Your task to perform on an android device: turn on showing notifications on the lock screen Image 0: 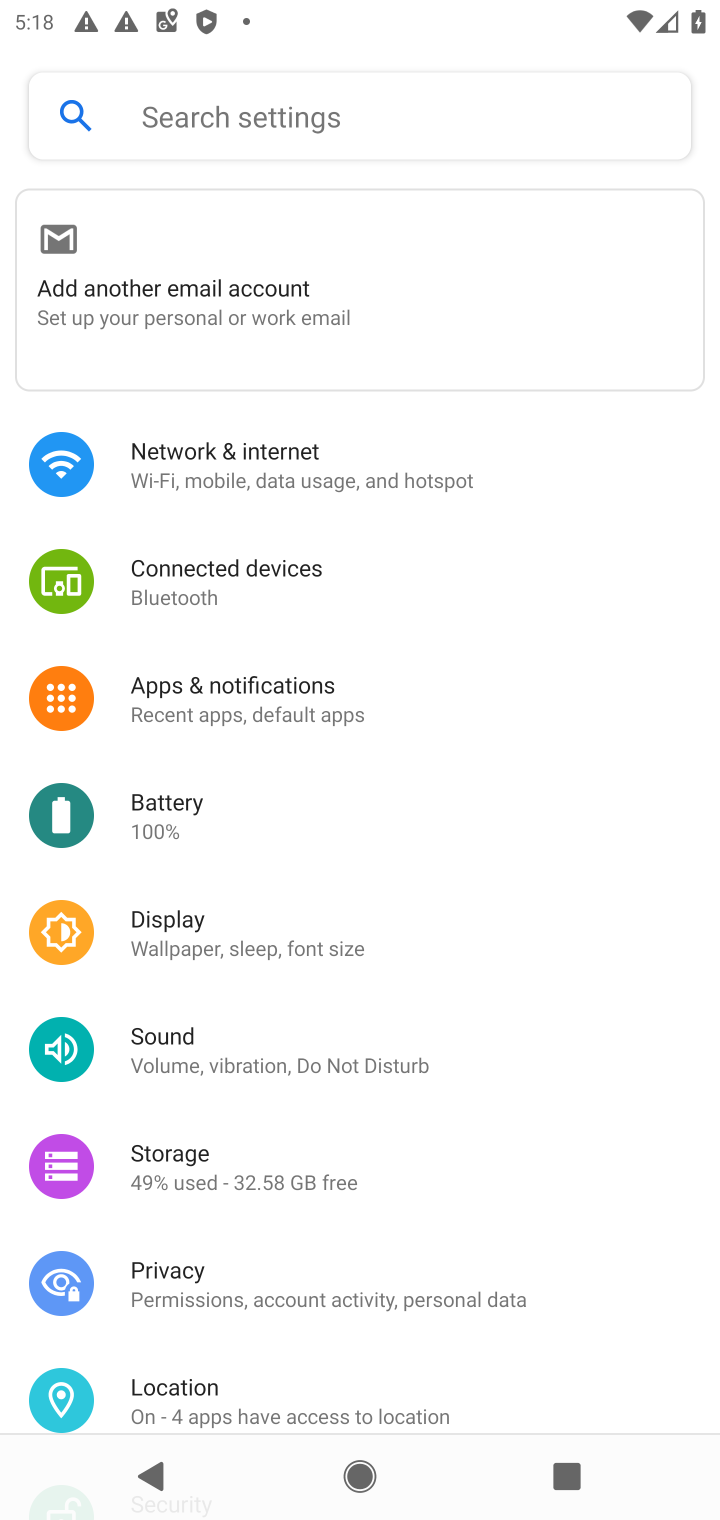
Step 0: press home button
Your task to perform on an android device: turn on showing notifications on the lock screen Image 1: 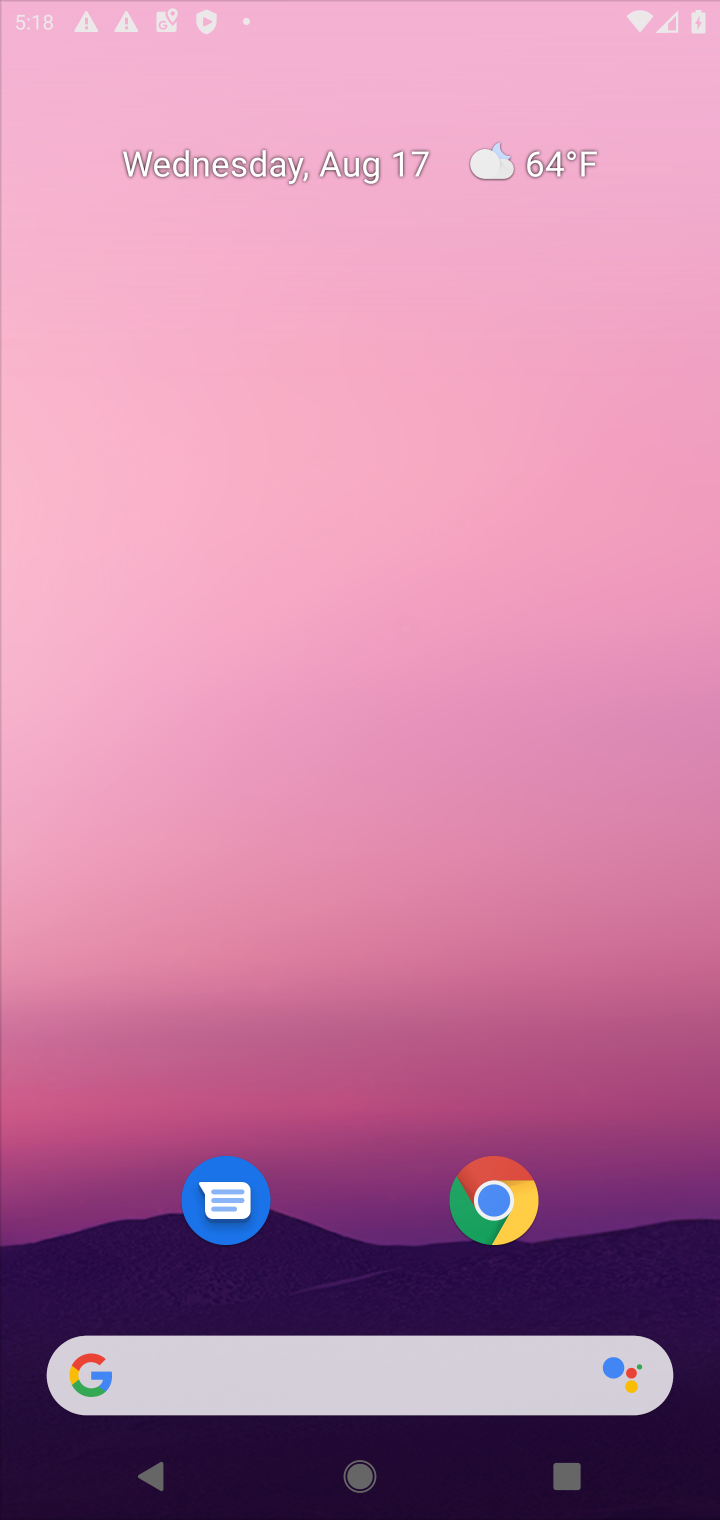
Step 1: press home button
Your task to perform on an android device: turn on showing notifications on the lock screen Image 2: 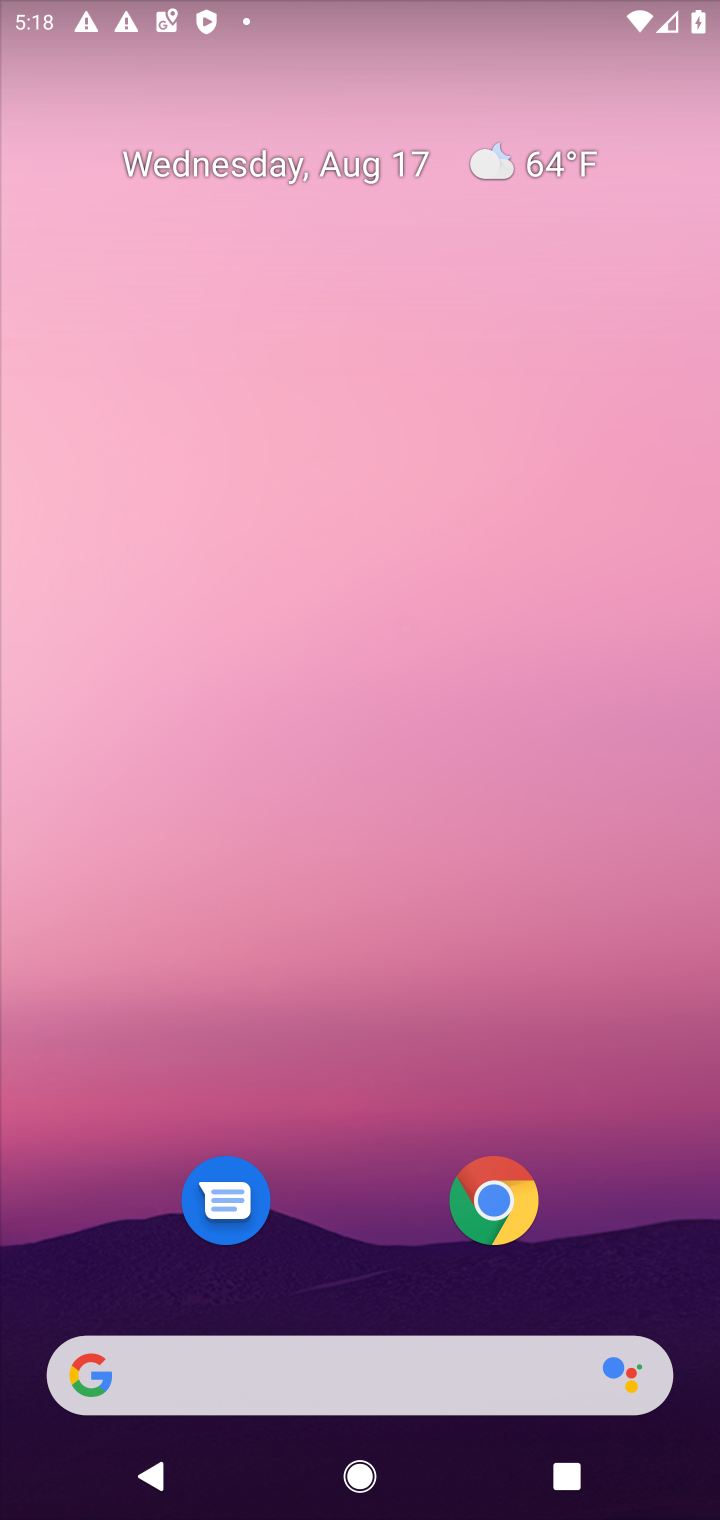
Step 2: drag from (391, 729) to (391, 168)
Your task to perform on an android device: turn on showing notifications on the lock screen Image 3: 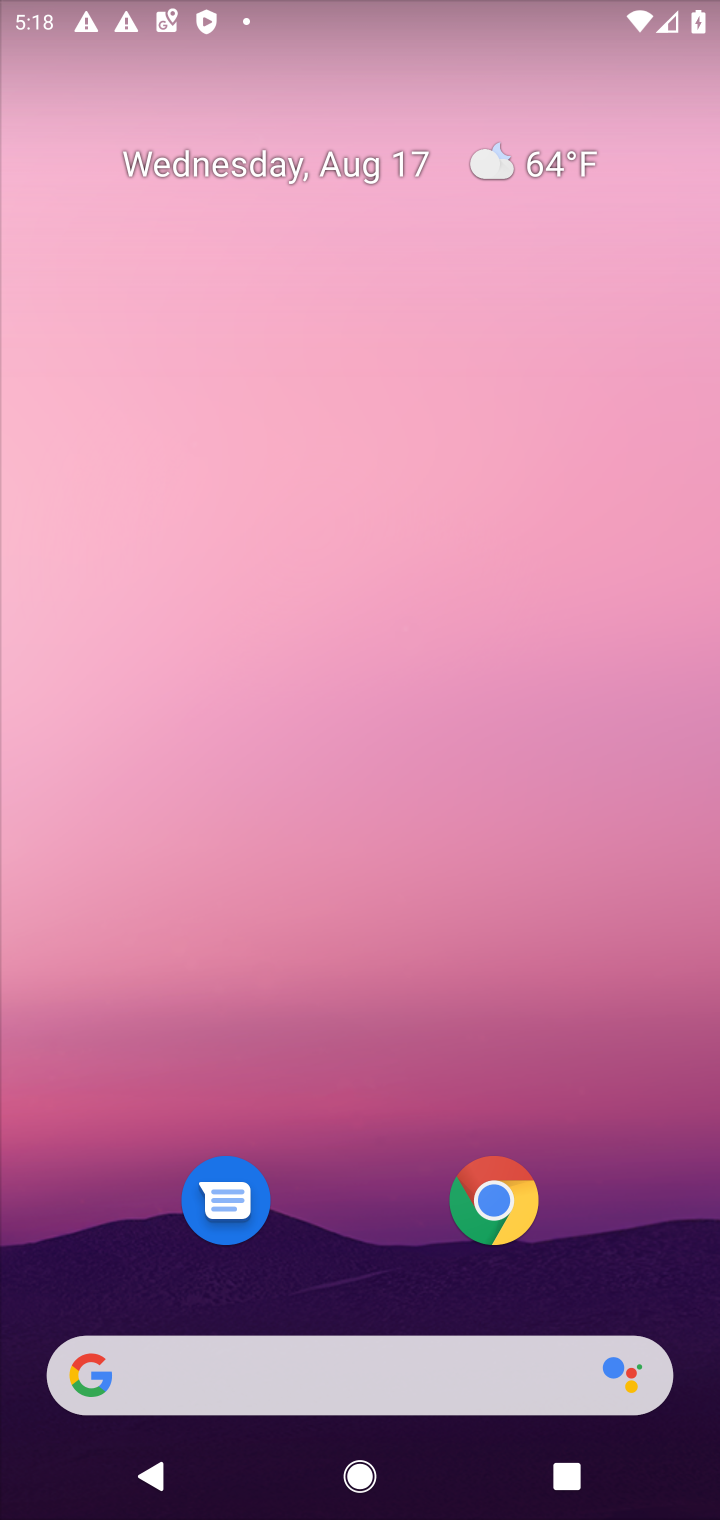
Step 3: drag from (334, 1233) to (295, 98)
Your task to perform on an android device: turn on showing notifications on the lock screen Image 4: 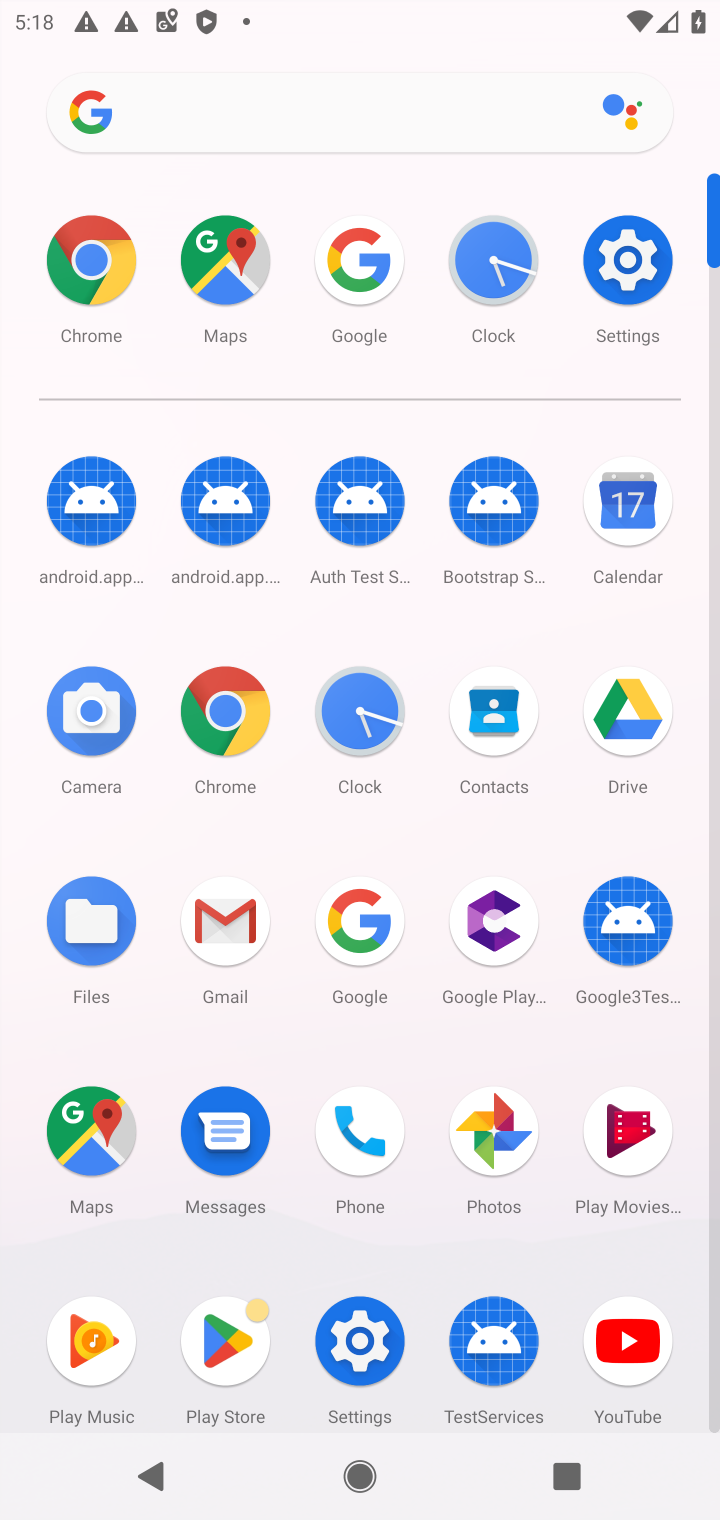
Step 4: click (626, 238)
Your task to perform on an android device: turn on showing notifications on the lock screen Image 5: 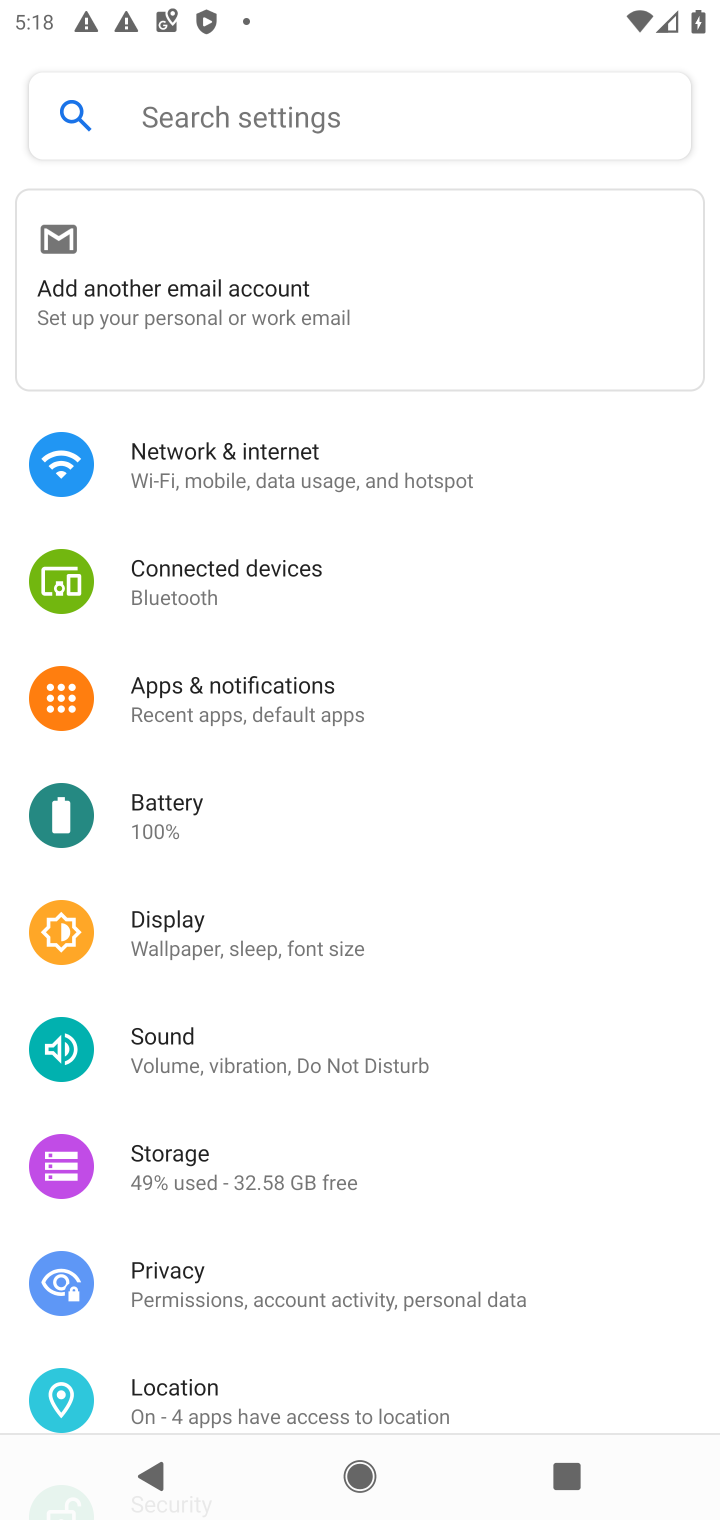
Step 5: click (216, 677)
Your task to perform on an android device: turn on showing notifications on the lock screen Image 6: 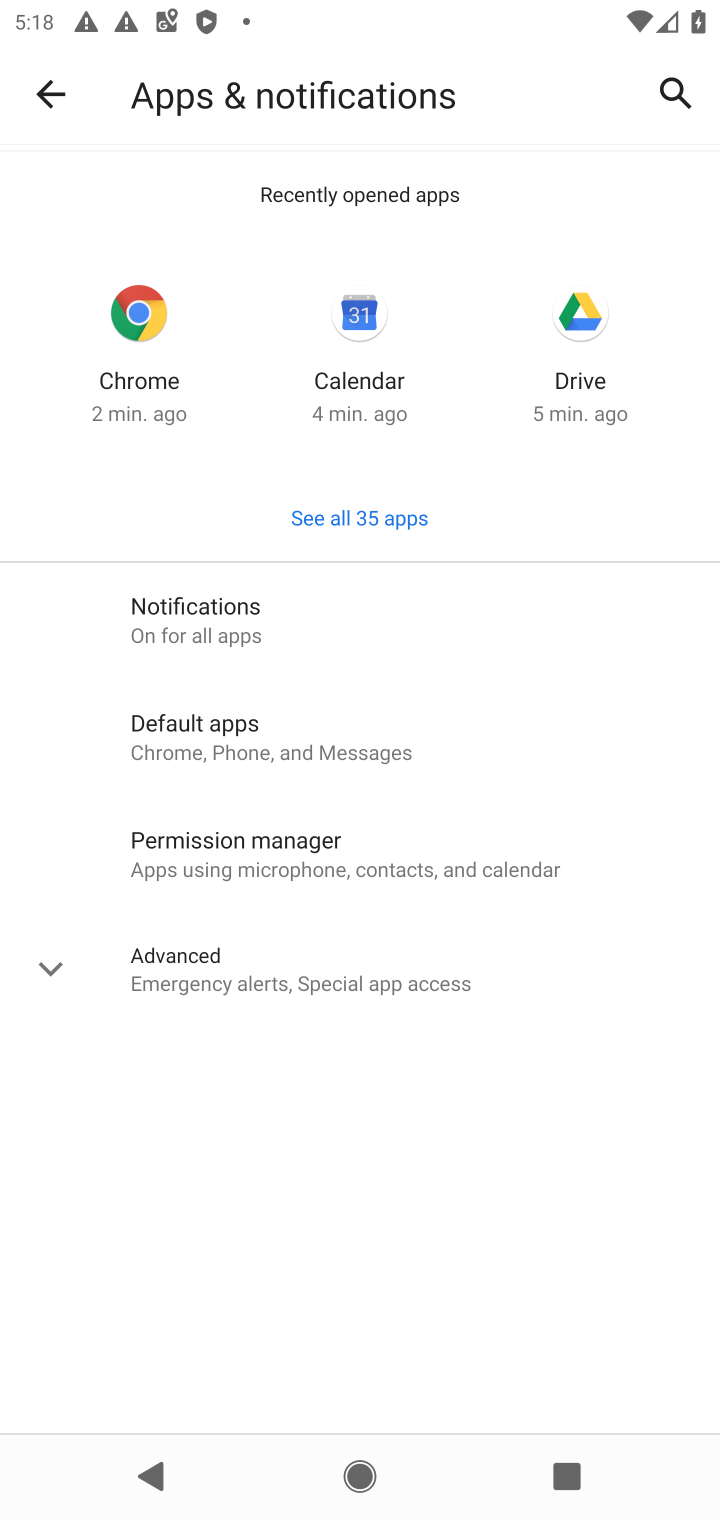
Step 6: click (181, 627)
Your task to perform on an android device: turn on showing notifications on the lock screen Image 7: 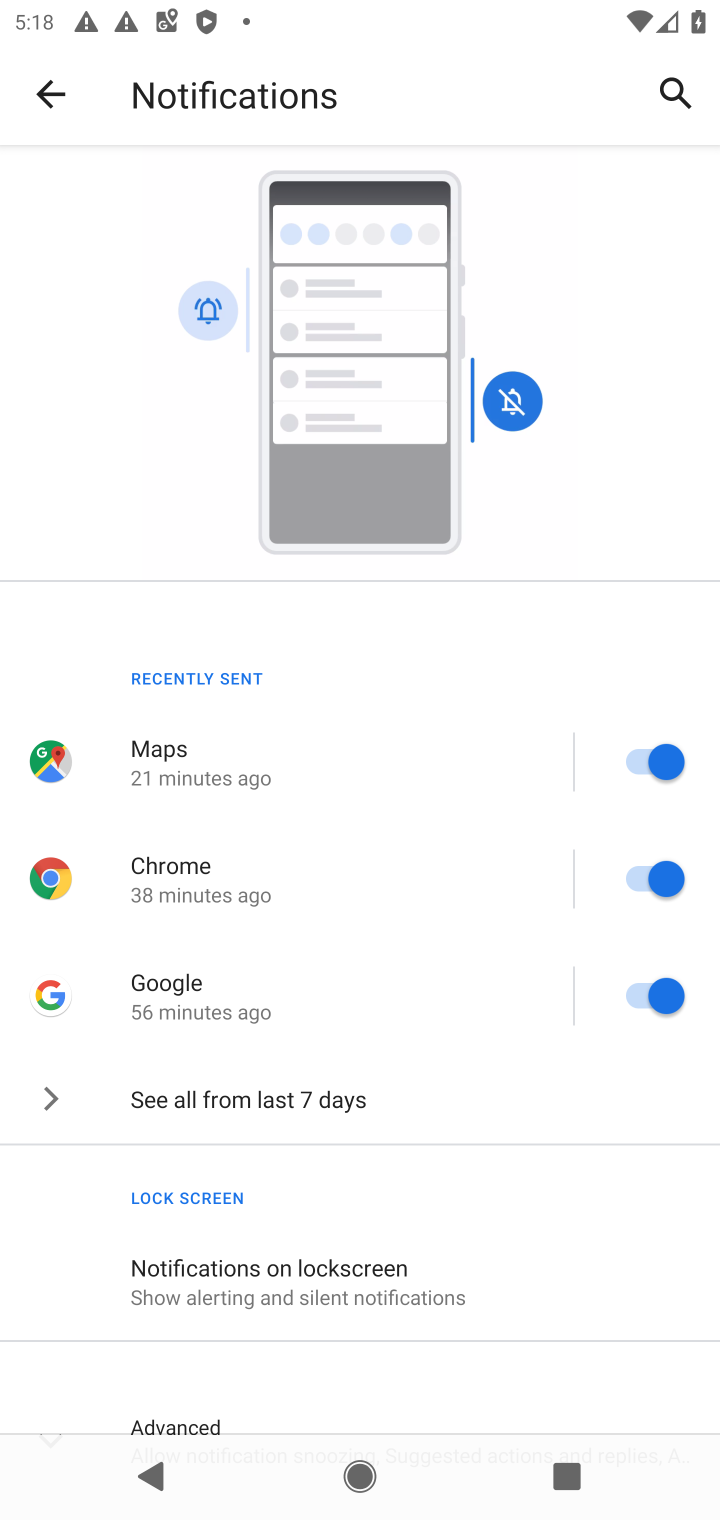
Step 7: click (208, 1284)
Your task to perform on an android device: turn on showing notifications on the lock screen Image 8: 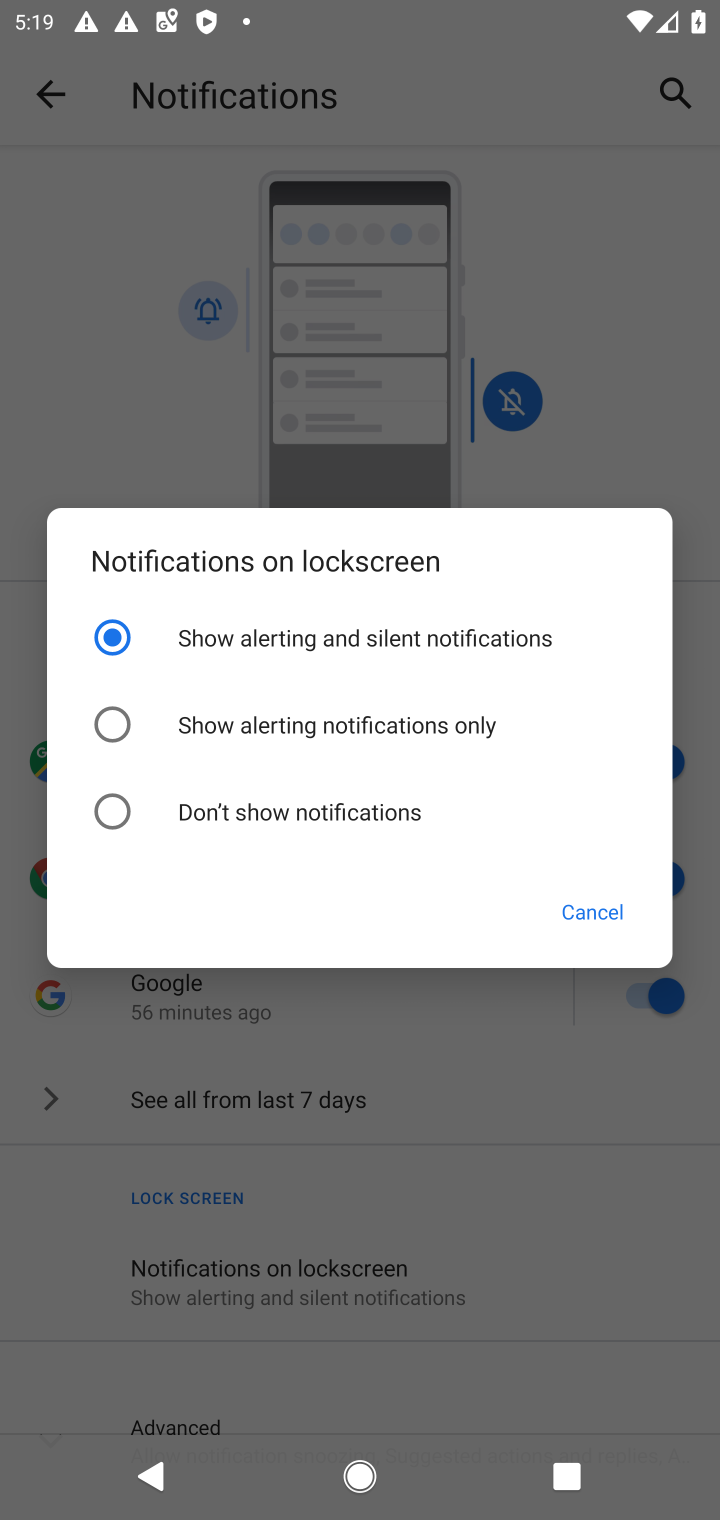
Step 8: click (600, 911)
Your task to perform on an android device: turn on showing notifications on the lock screen Image 9: 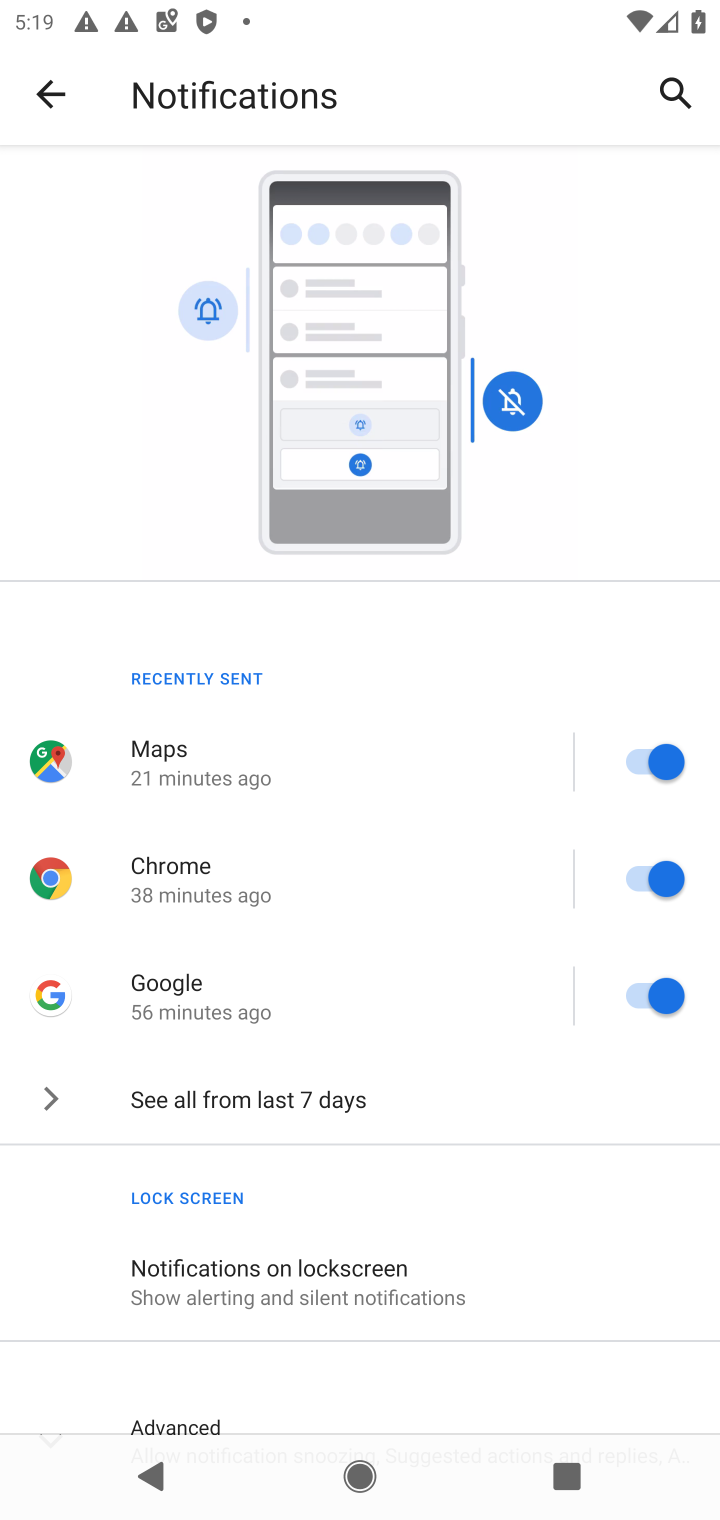
Step 9: task complete